Your task to perform on an android device: Go to network settings Image 0: 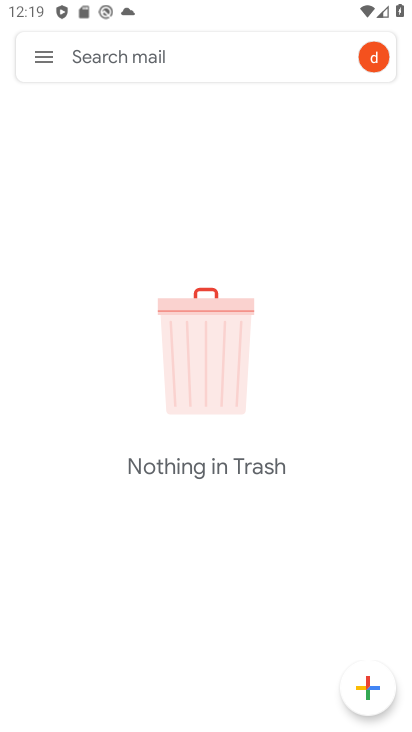
Step 0: press back button
Your task to perform on an android device: Go to network settings Image 1: 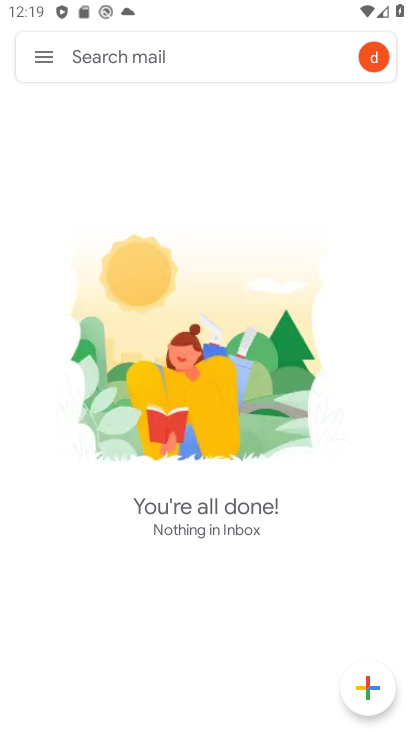
Step 1: press back button
Your task to perform on an android device: Go to network settings Image 2: 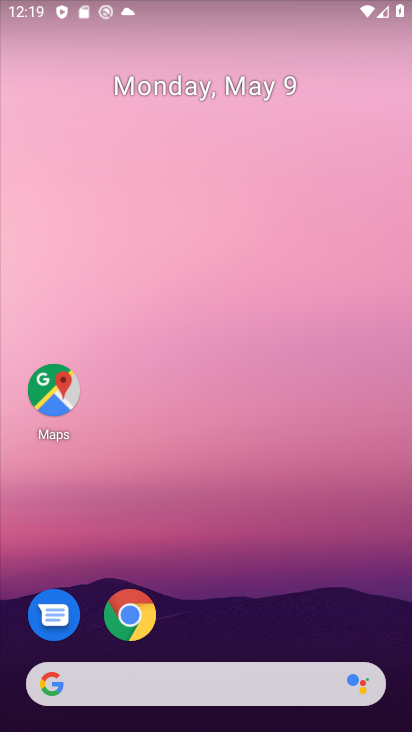
Step 2: drag from (226, 604) to (181, 128)
Your task to perform on an android device: Go to network settings Image 3: 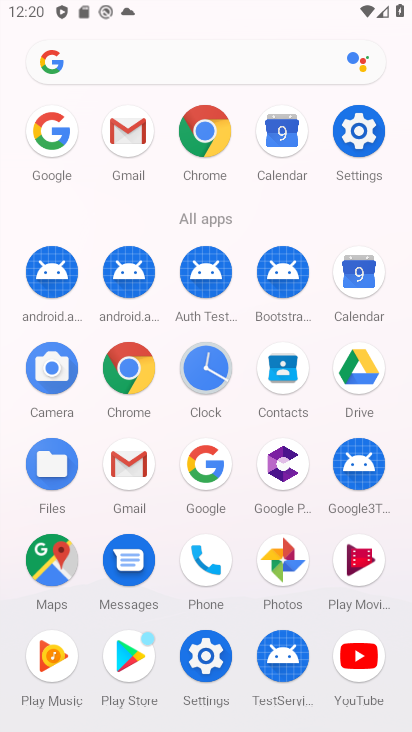
Step 3: click (358, 133)
Your task to perform on an android device: Go to network settings Image 4: 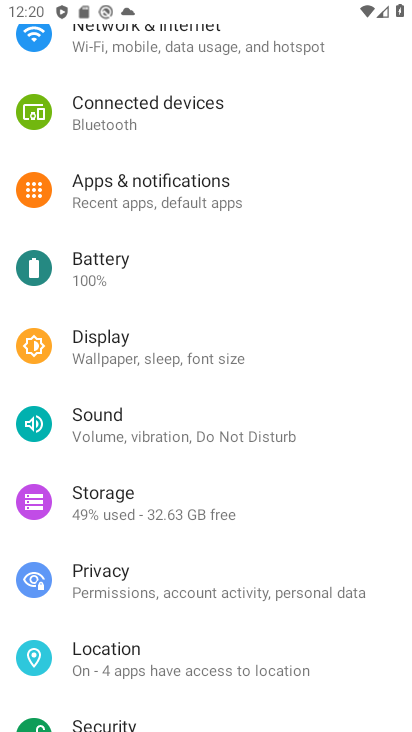
Step 4: drag from (178, 319) to (204, 438)
Your task to perform on an android device: Go to network settings Image 5: 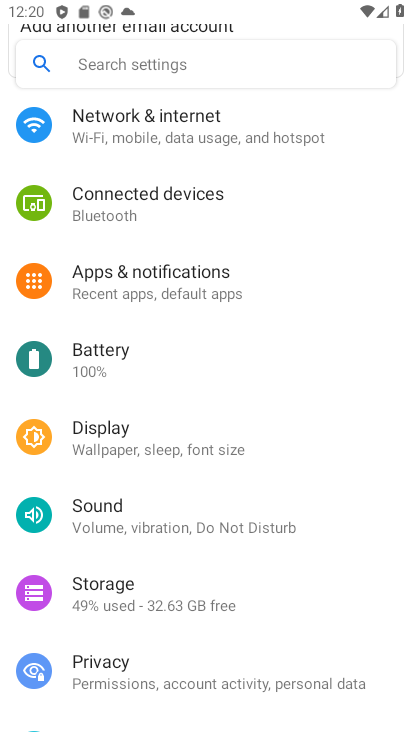
Step 5: click (183, 117)
Your task to perform on an android device: Go to network settings Image 6: 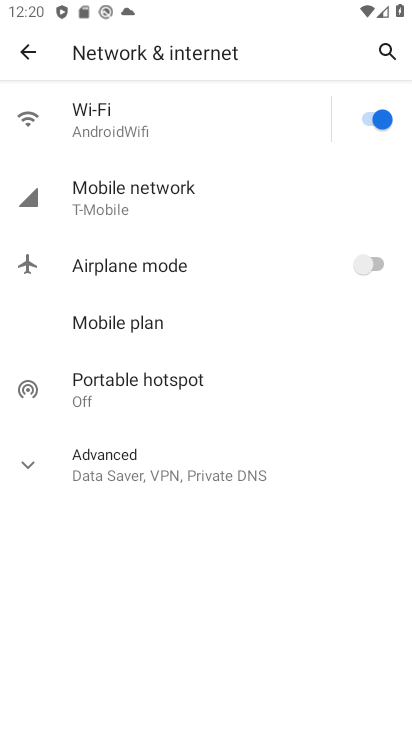
Step 6: click (184, 183)
Your task to perform on an android device: Go to network settings Image 7: 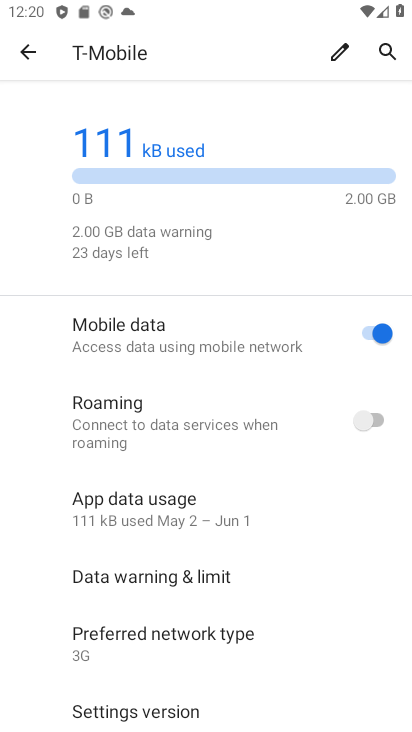
Step 7: task complete